Your task to perform on an android device: move an email to a new category in the gmail app Image 0: 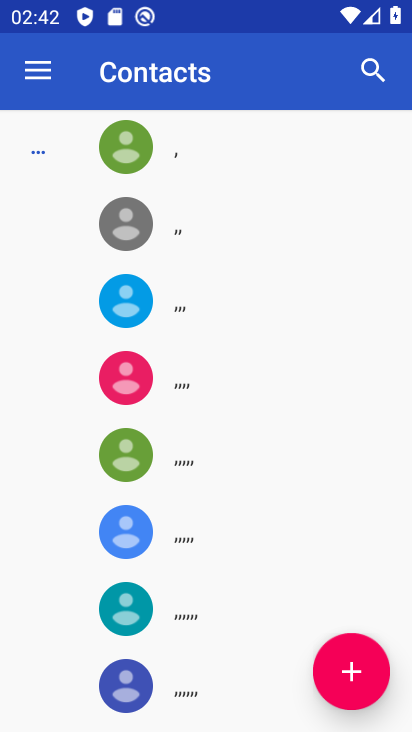
Step 0: press home button
Your task to perform on an android device: move an email to a new category in the gmail app Image 1: 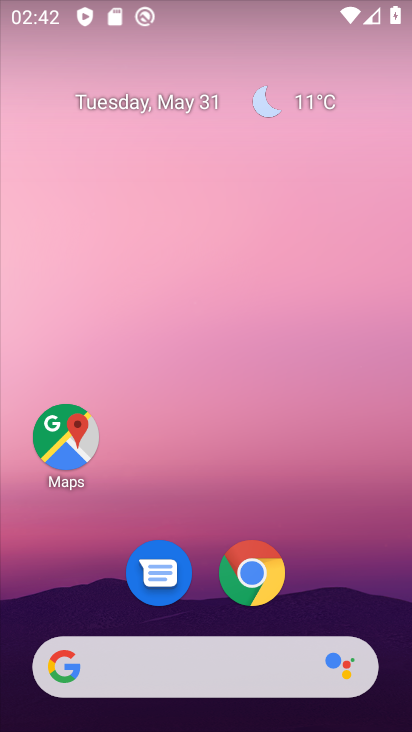
Step 1: drag from (377, 624) to (386, 163)
Your task to perform on an android device: move an email to a new category in the gmail app Image 2: 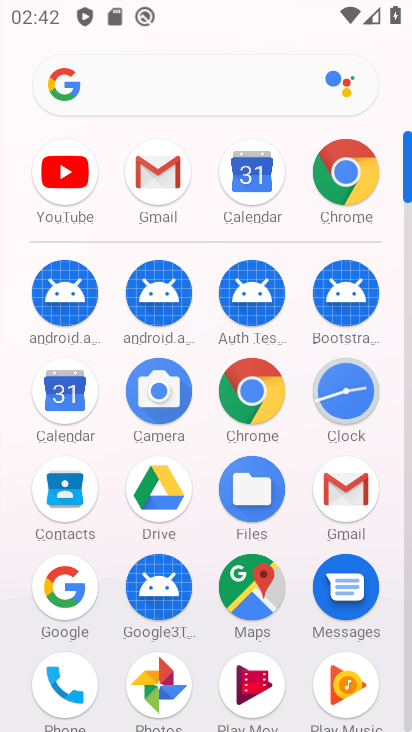
Step 2: click (166, 176)
Your task to perform on an android device: move an email to a new category in the gmail app Image 3: 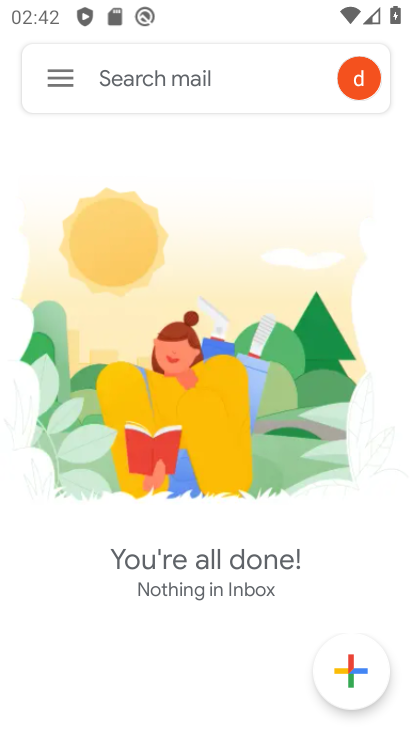
Step 3: task complete